Your task to perform on an android device: turn on bluetooth scan Image 0: 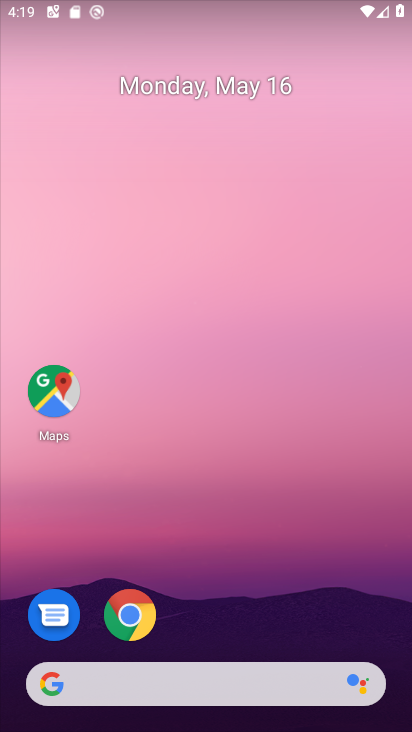
Step 0: drag from (244, 523) to (278, 174)
Your task to perform on an android device: turn on bluetooth scan Image 1: 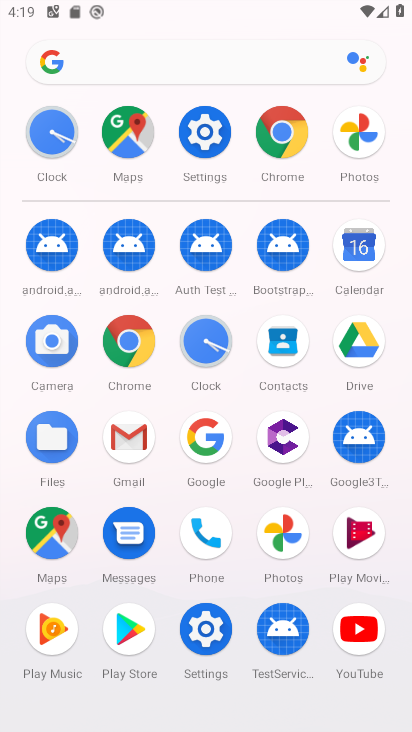
Step 1: click (205, 138)
Your task to perform on an android device: turn on bluetooth scan Image 2: 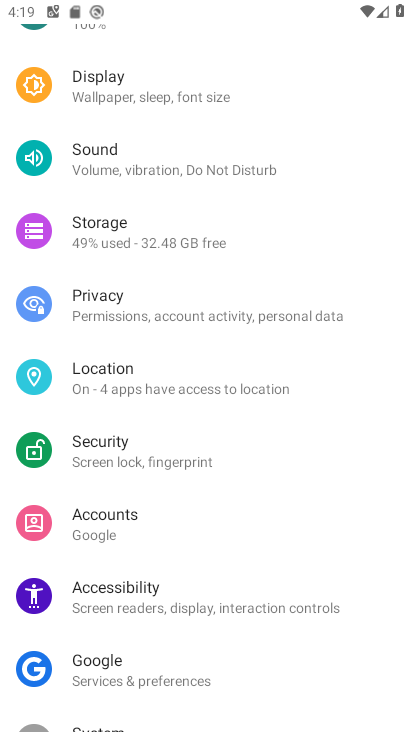
Step 2: drag from (125, 197) to (93, 527)
Your task to perform on an android device: turn on bluetooth scan Image 3: 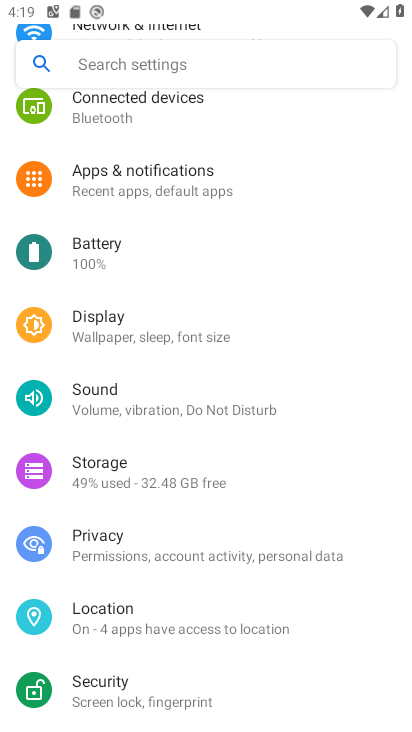
Step 3: drag from (185, 271) to (172, 462)
Your task to perform on an android device: turn on bluetooth scan Image 4: 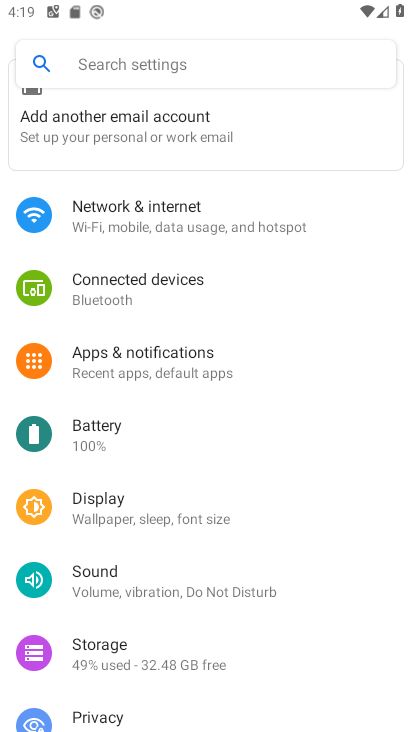
Step 4: click (206, 462)
Your task to perform on an android device: turn on bluetooth scan Image 5: 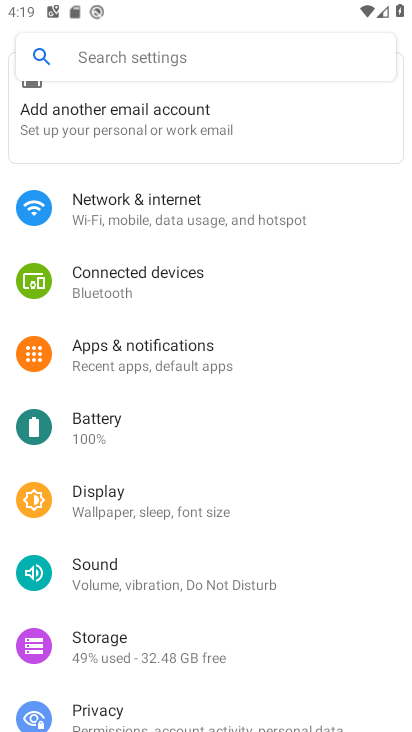
Step 5: drag from (155, 680) to (247, 321)
Your task to perform on an android device: turn on bluetooth scan Image 6: 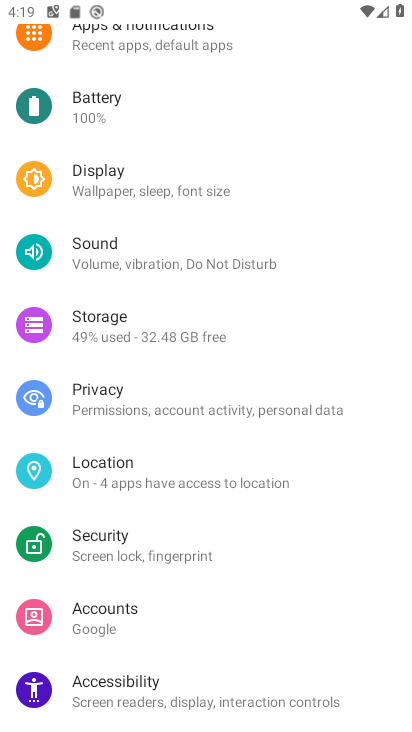
Step 6: click (151, 478)
Your task to perform on an android device: turn on bluetooth scan Image 7: 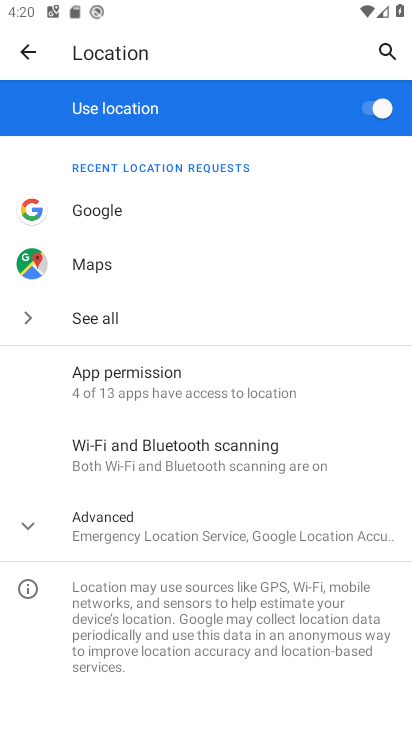
Step 7: click (142, 535)
Your task to perform on an android device: turn on bluetooth scan Image 8: 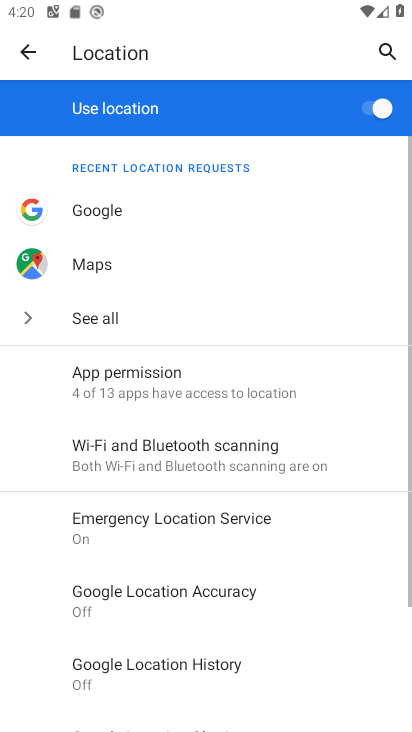
Step 8: drag from (169, 637) to (199, 548)
Your task to perform on an android device: turn on bluetooth scan Image 9: 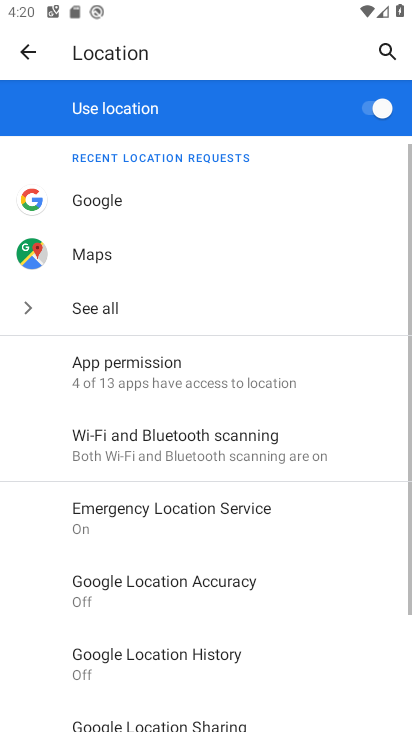
Step 9: click (155, 452)
Your task to perform on an android device: turn on bluetooth scan Image 10: 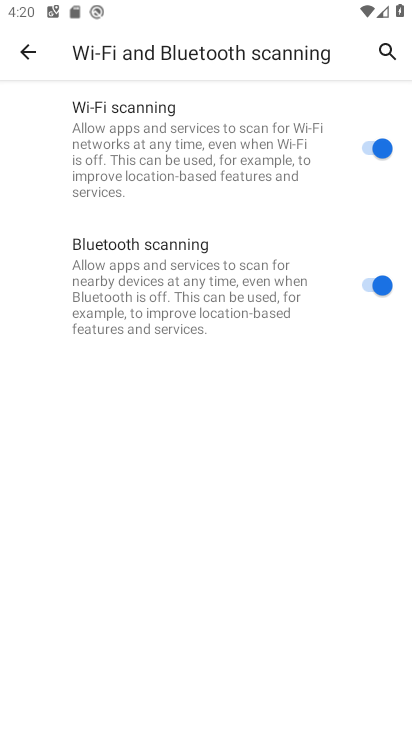
Step 10: task complete